Your task to perform on an android device: change the clock display to show seconds Image 0: 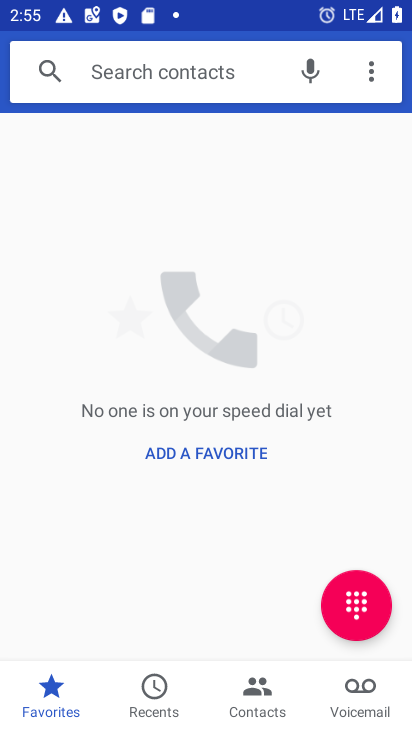
Step 0: press home button
Your task to perform on an android device: change the clock display to show seconds Image 1: 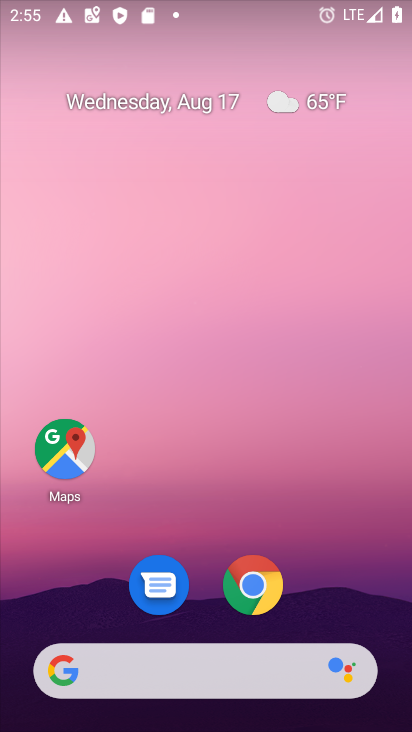
Step 1: drag from (300, 588) to (396, 58)
Your task to perform on an android device: change the clock display to show seconds Image 2: 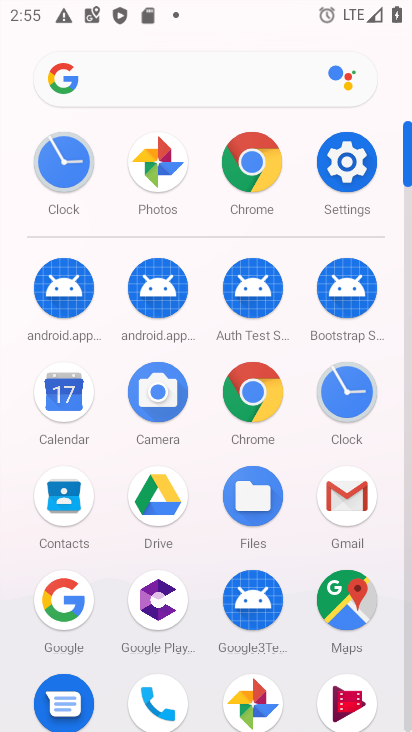
Step 2: click (339, 392)
Your task to perform on an android device: change the clock display to show seconds Image 3: 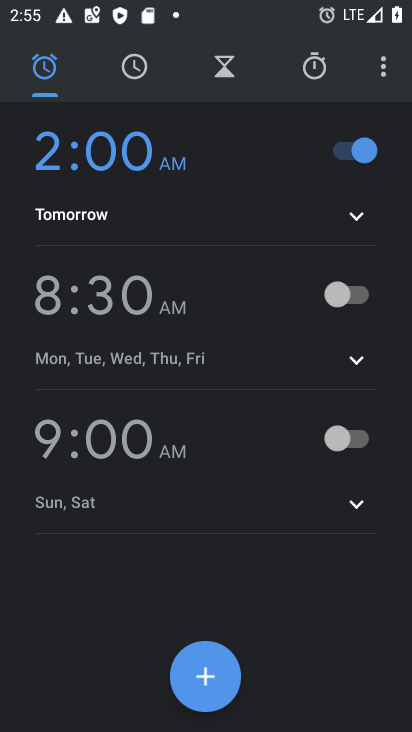
Step 3: click (139, 64)
Your task to perform on an android device: change the clock display to show seconds Image 4: 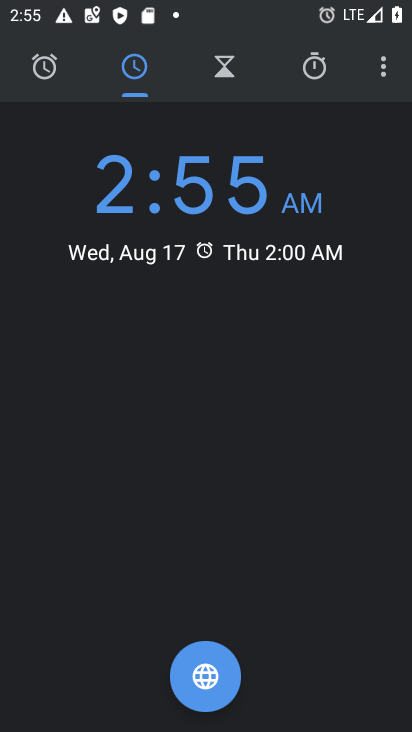
Step 4: click (380, 68)
Your task to perform on an android device: change the clock display to show seconds Image 5: 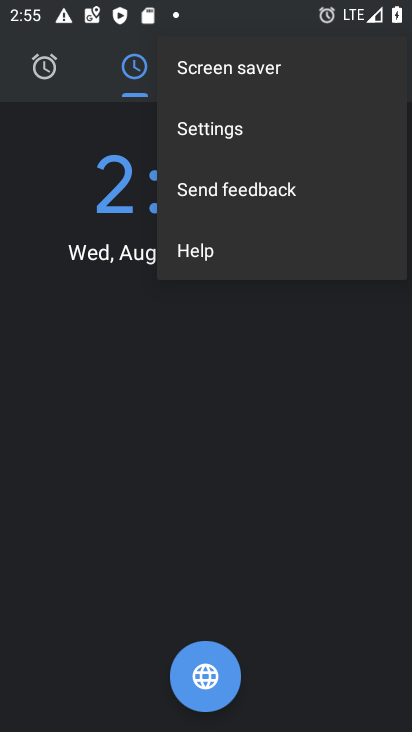
Step 5: click (278, 133)
Your task to perform on an android device: change the clock display to show seconds Image 6: 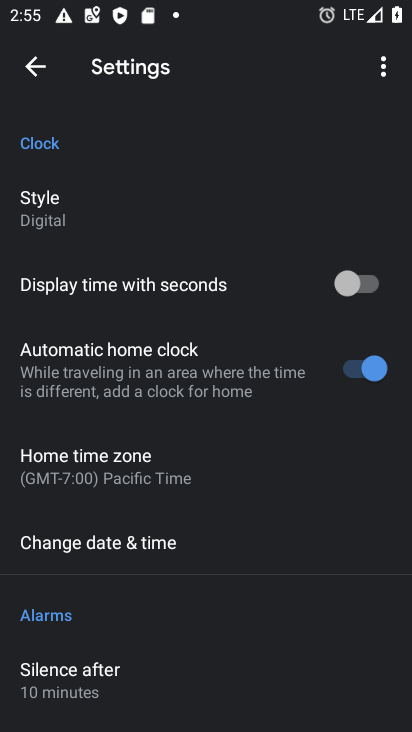
Step 6: click (365, 286)
Your task to perform on an android device: change the clock display to show seconds Image 7: 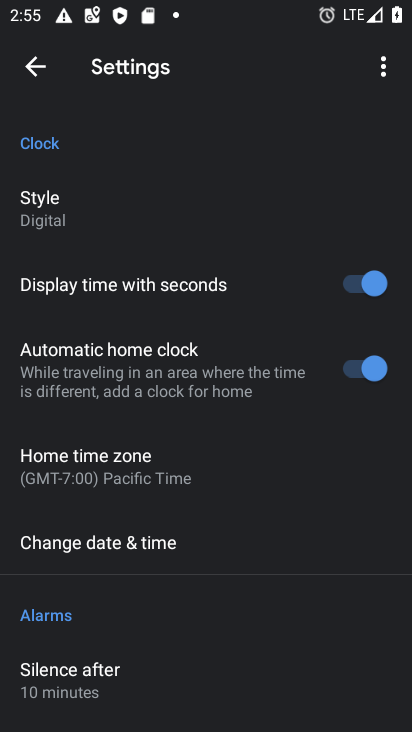
Step 7: click (30, 68)
Your task to perform on an android device: change the clock display to show seconds Image 8: 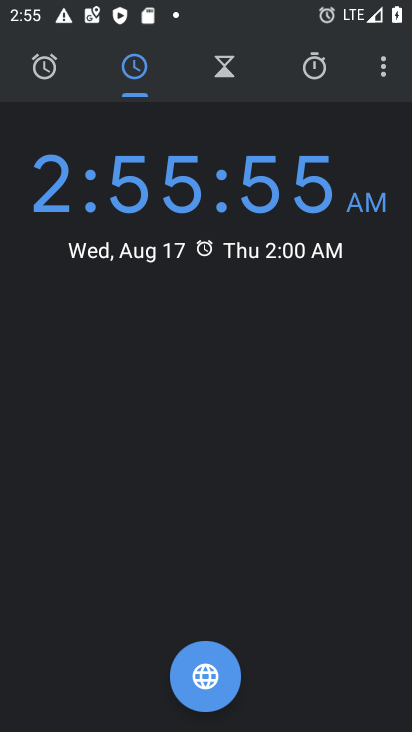
Step 8: task complete